Your task to perform on an android device: turn on sleep mode Image 0: 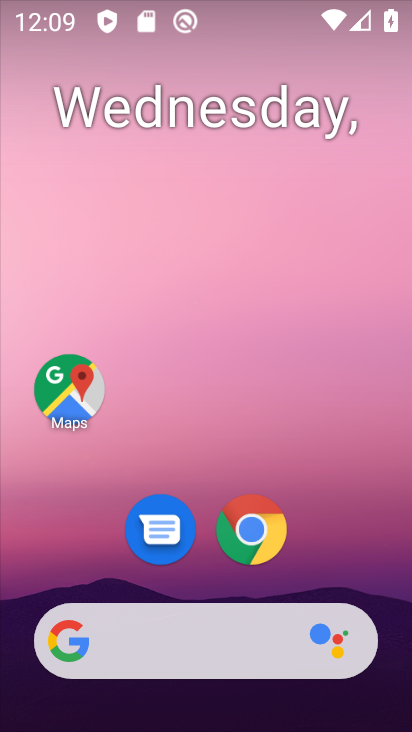
Step 0: drag from (208, 570) to (237, 369)
Your task to perform on an android device: turn on sleep mode Image 1: 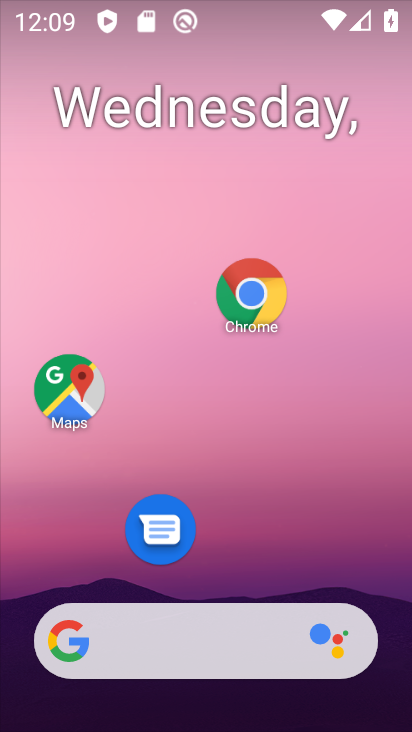
Step 1: drag from (309, 547) to (286, 186)
Your task to perform on an android device: turn on sleep mode Image 2: 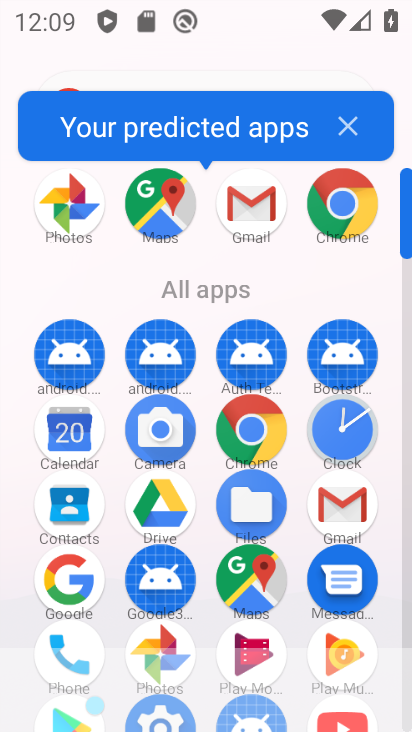
Step 2: drag from (59, 492) to (54, 287)
Your task to perform on an android device: turn on sleep mode Image 3: 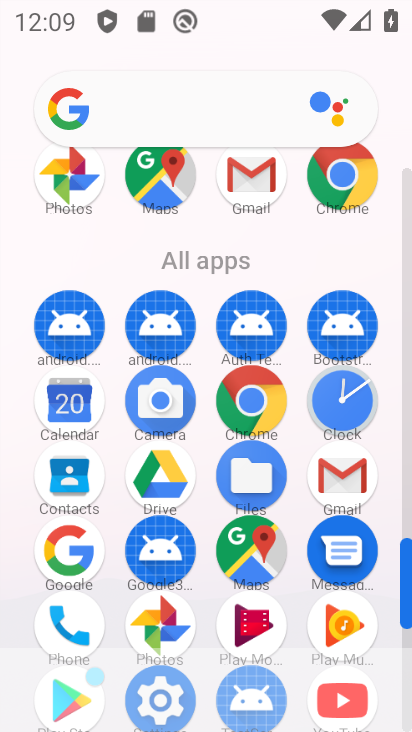
Step 3: drag from (60, 507) to (74, 313)
Your task to perform on an android device: turn on sleep mode Image 4: 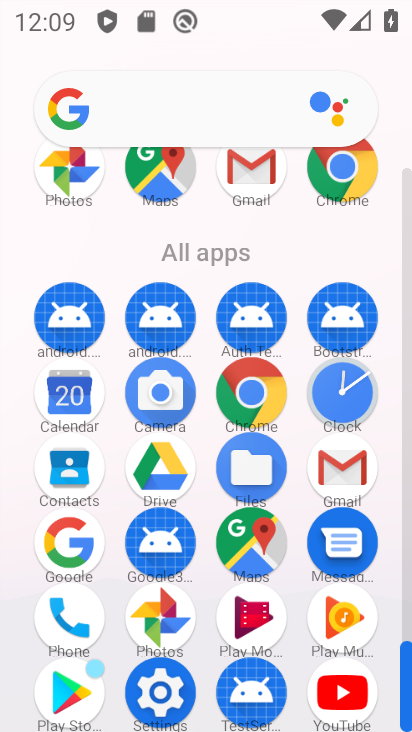
Step 4: click (150, 672)
Your task to perform on an android device: turn on sleep mode Image 5: 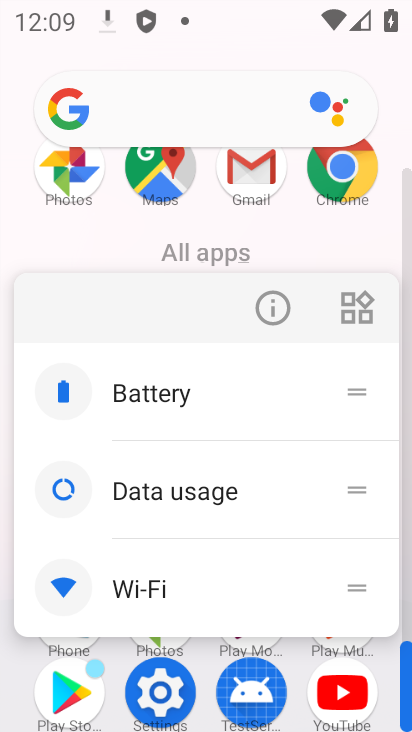
Step 5: click (160, 683)
Your task to perform on an android device: turn on sleep mode Image 6: 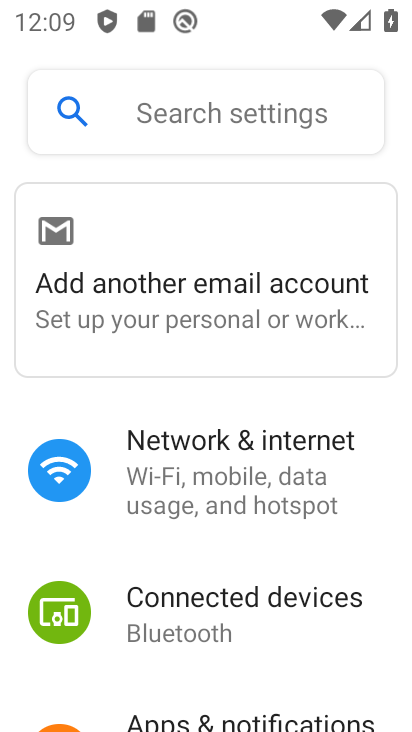
Step 6: drag from (237, 641) to (292, 345)
Your task to perform on an android device: turn on sleep mode Image 7: 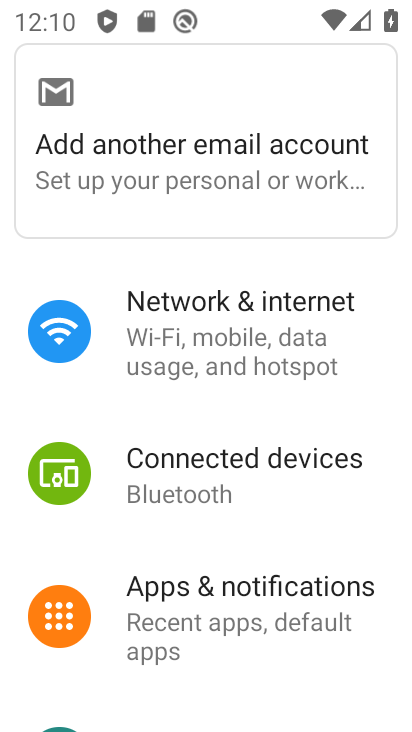
Step 7: drag from (259, 569) to (307, 215)
Your task to perform on an android device: turn on sleep mode Image 8: 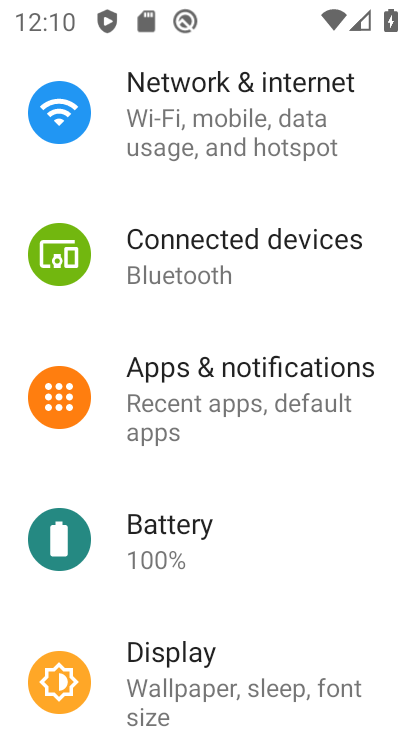
Step 8: click (249, 669)
Your task to perform on an android device: turn on sleep mode Image 9: 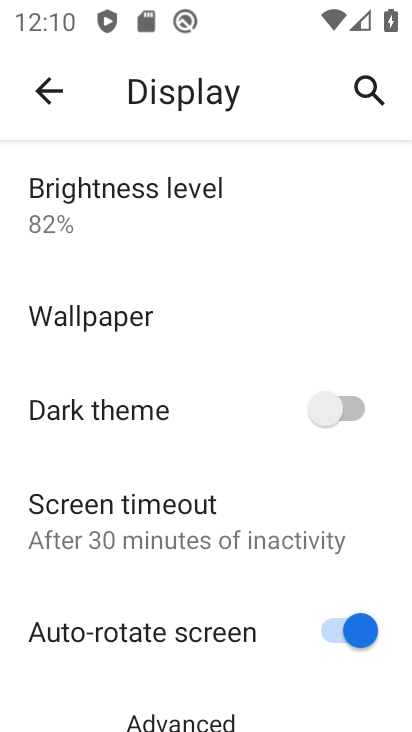
Step 9: click (271, 706)
Your task to perform on an android device: turn on sleep mode Image 10: 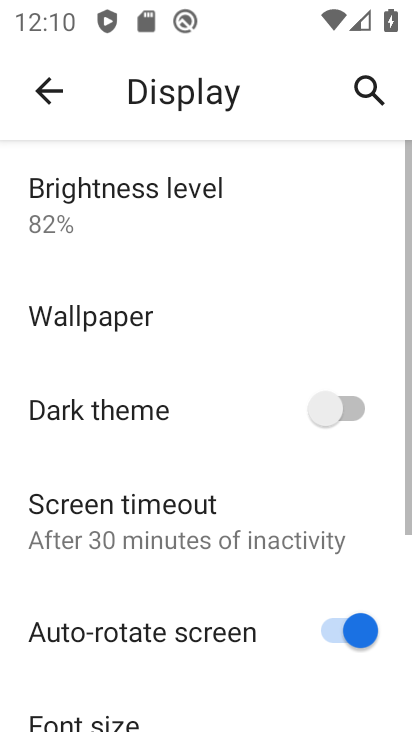
Step 10: task complete